Your task to perform on an android device: Show me productivity apps on the Play Store Image 0: 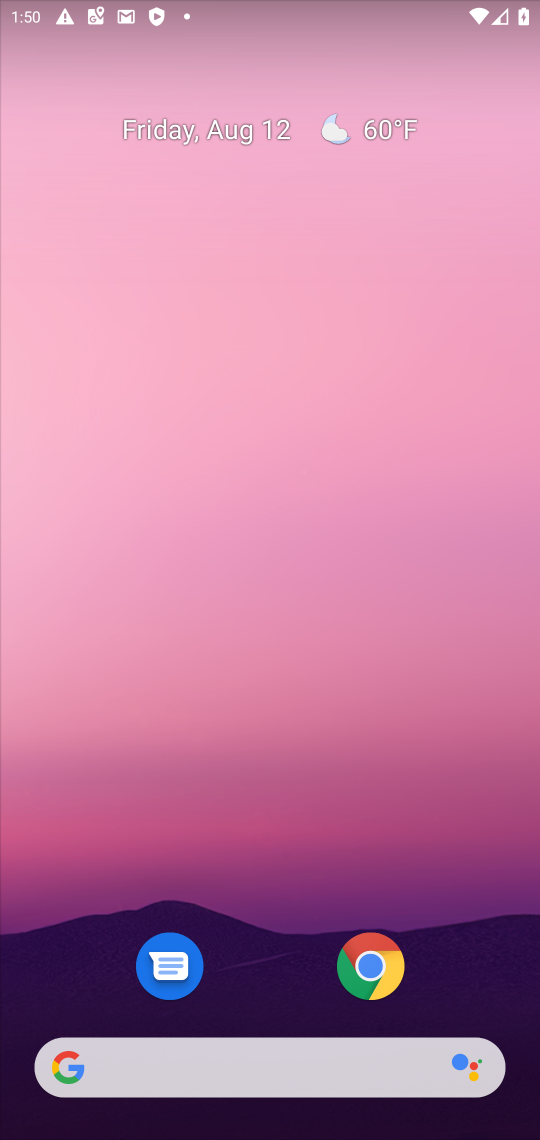
Step 0: click (305, 247)
Your task to perform on an android device: Show me productivity apps on the Play Store Image 1: 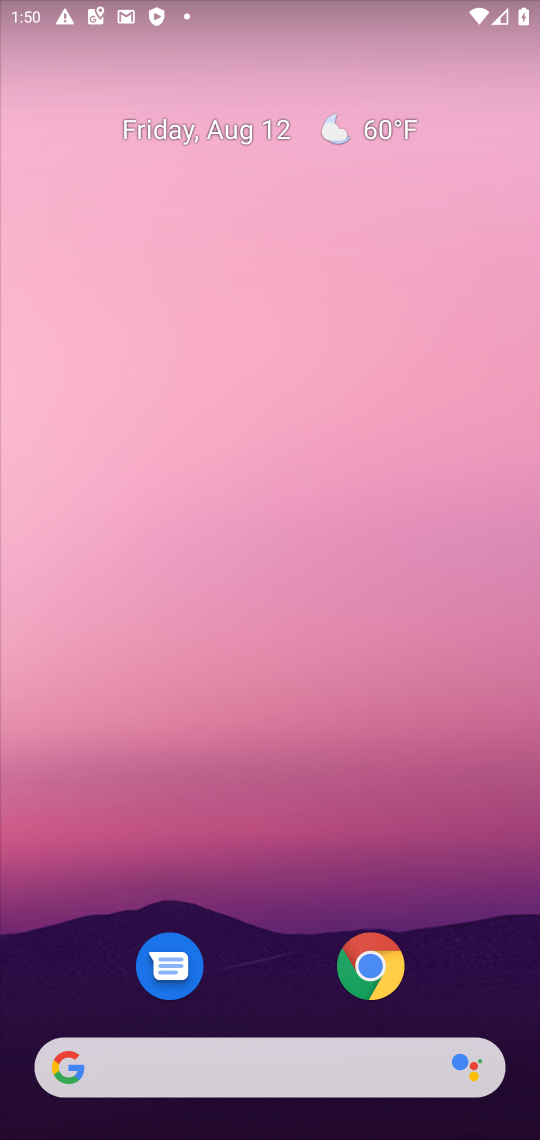
Step 1: press home button
Your task to perform on an android device: Show me productivity apps on the Play Store Image 2: 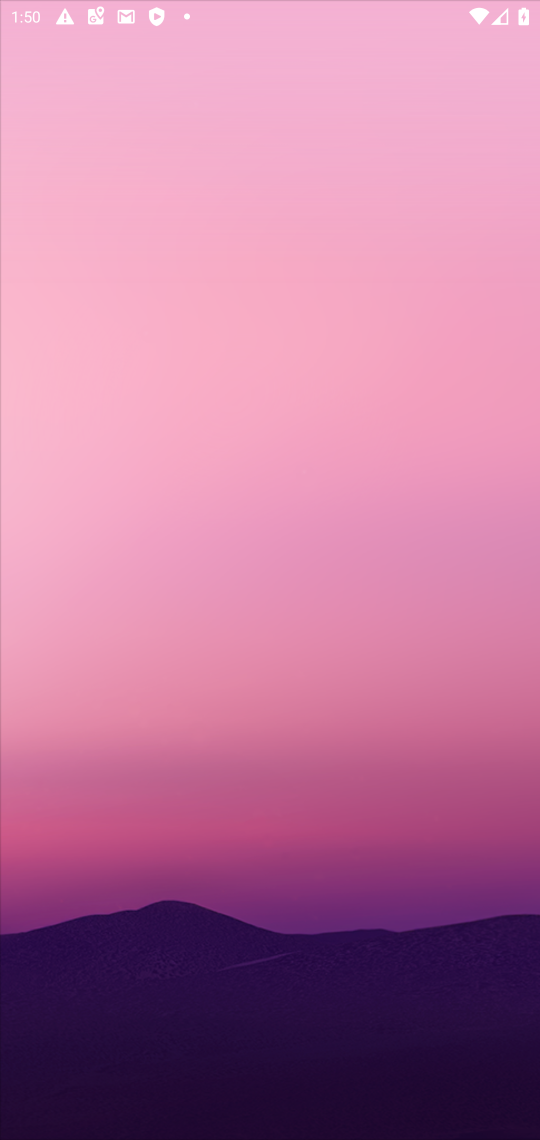
Step 2: press home button
Your task to perform on an android device: Show me productivity apps on the Play Store Image 3: 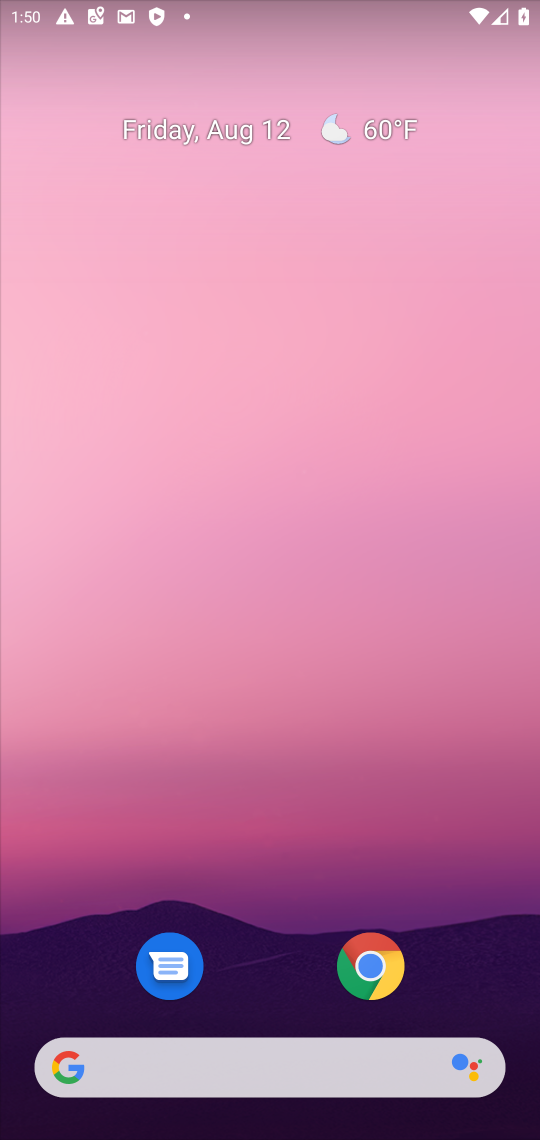
Step 3: drag from (260, 918) to (381, 223)
Your task to perform on an android device: Show me productivity apps on the Play Store Image 4: 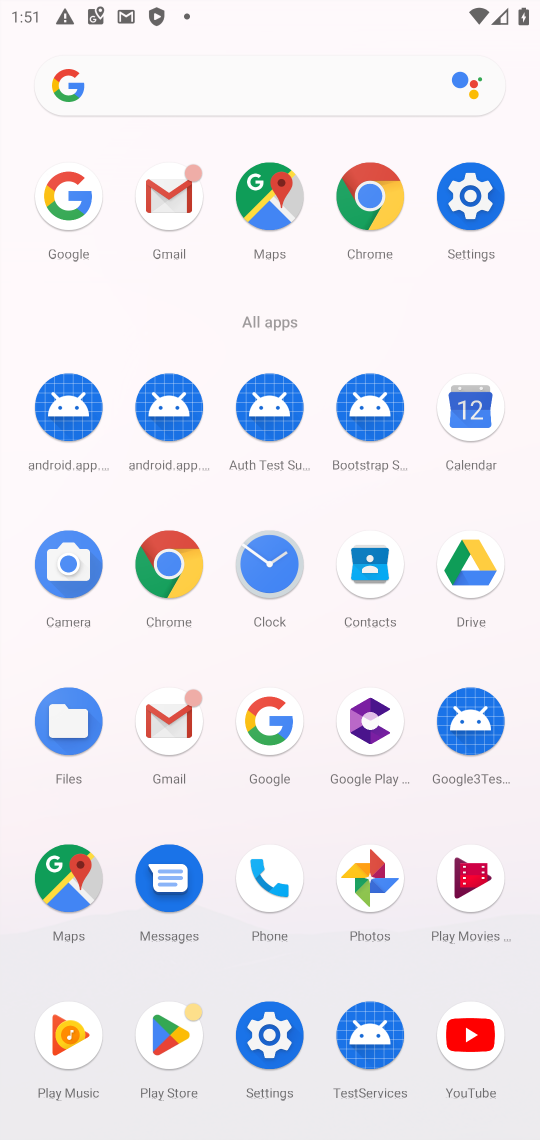
Step 4: click (162, 1039)
Your task to perform on an android device: Show me productivity apps on the Play Store Image 5: 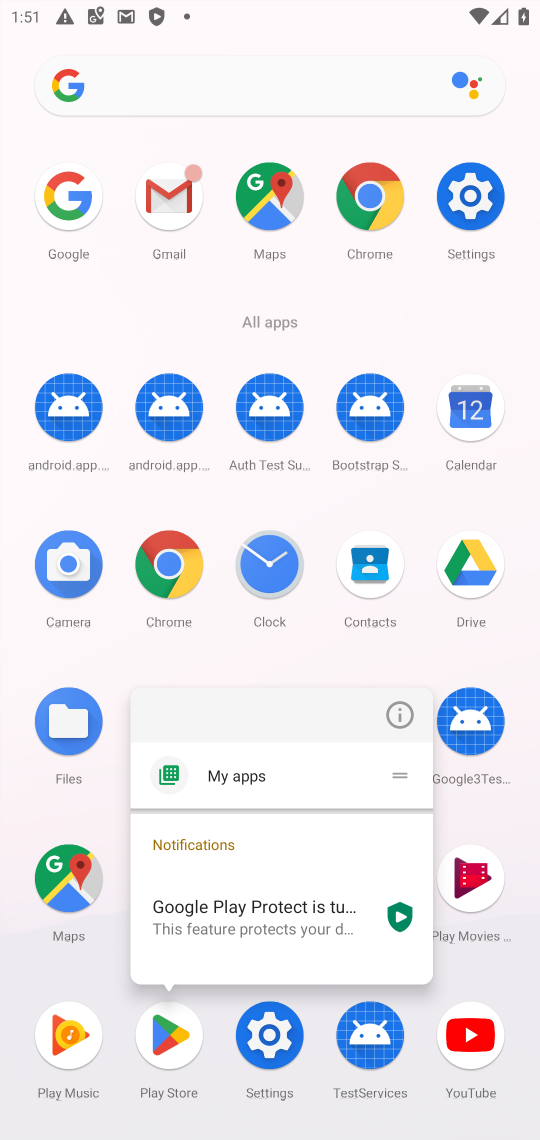
Step 5: click (162, 1038)
Your task to perform on an android device: Show me productivity apps on the Play Store Image 6: 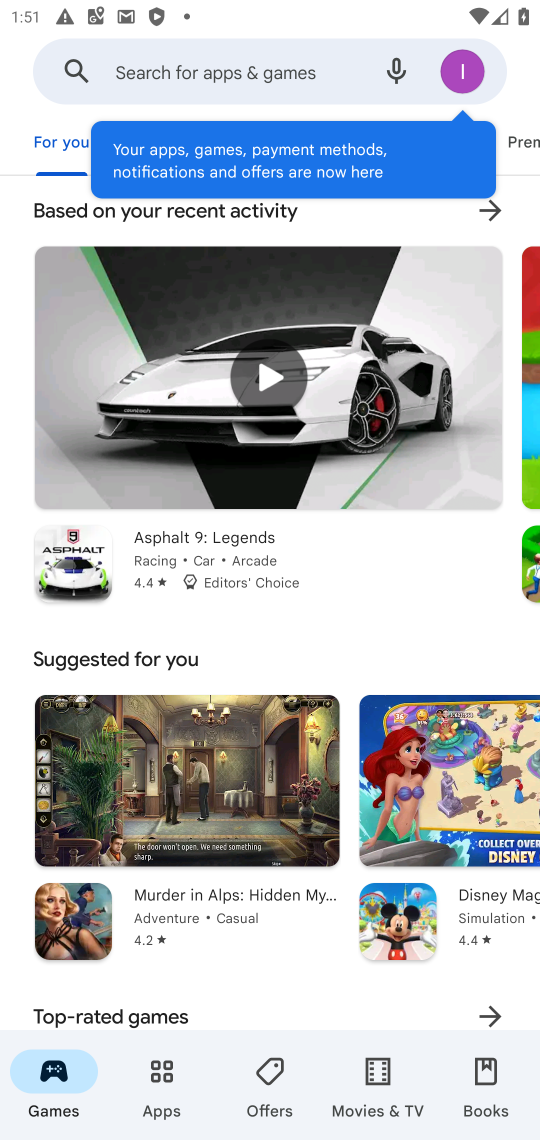
Step 6: click (170, 1085)
Your task to perform on an android device: Show me productivity apps on the Play Store Image 7: 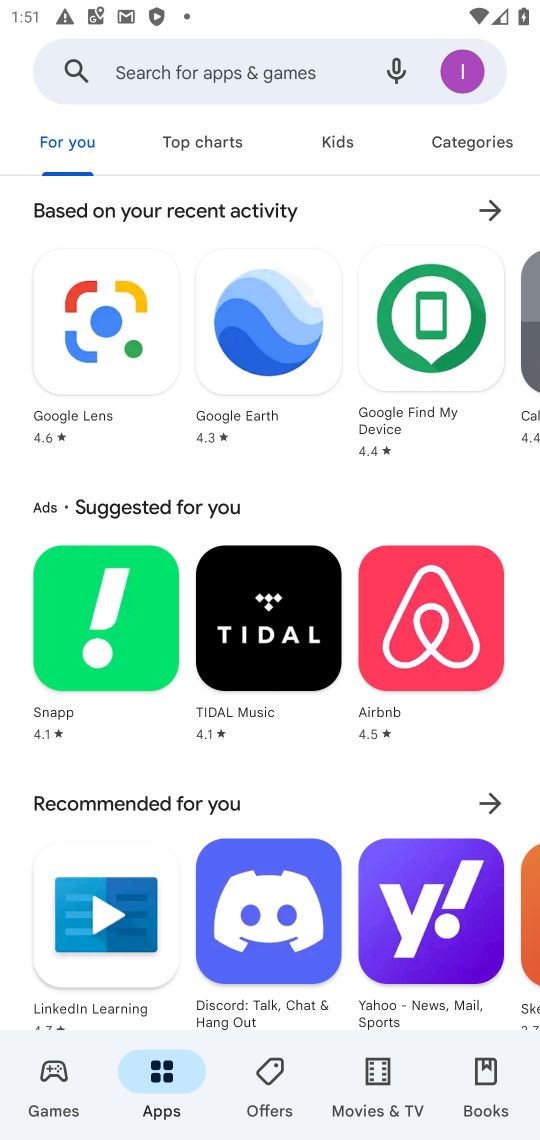
Step 7: task complete